Your task to perform on an android device: Is it going to rain today? Image 0: 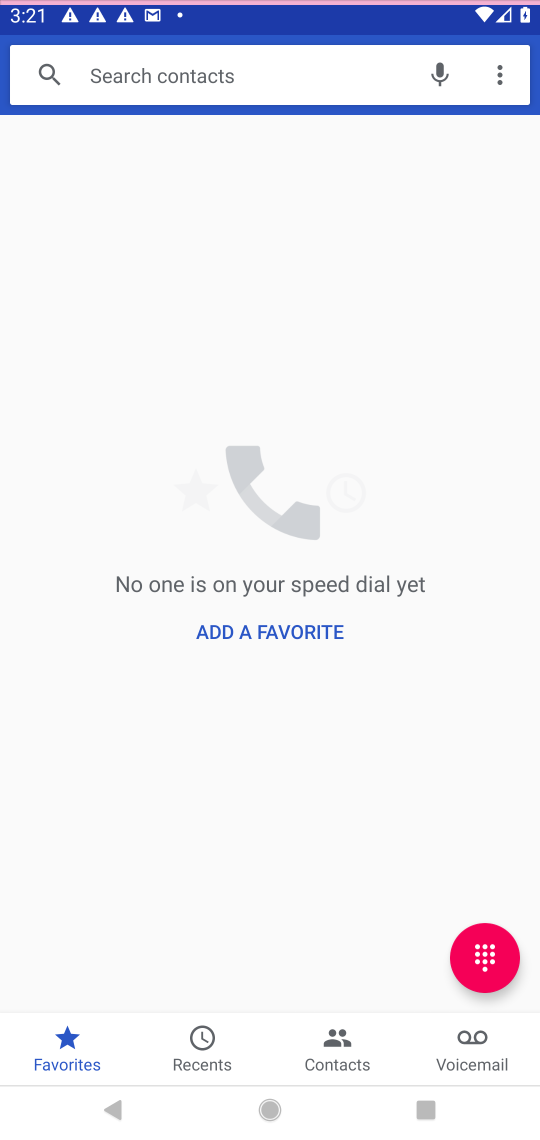
Step 0: drag from (205, 961) to (289, 326)
Your task to perform on an android device: Is it going to rain today? Image 1: 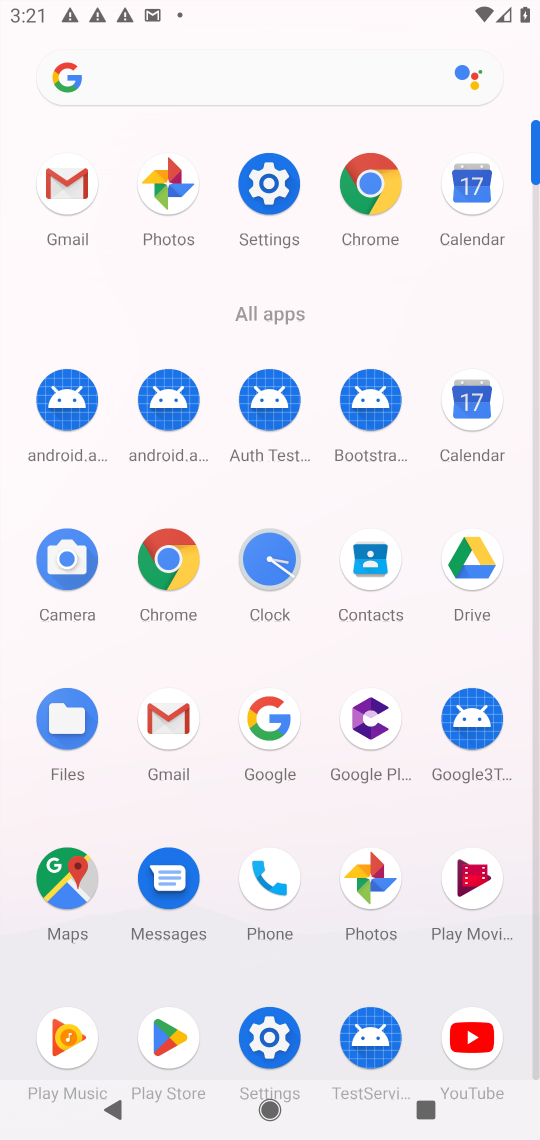
Step 1: click (264, 721)
Your task to perform on an android device: Is it going to rain today? Image 2: 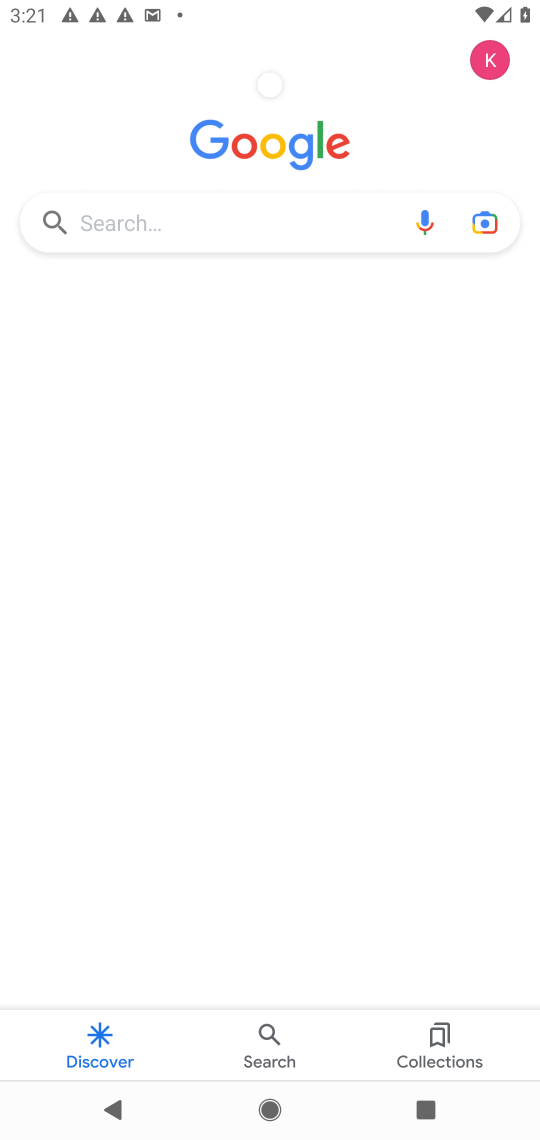
Step 2: click (259, 224)
Your task to perform on an android device: Is it going to rain today? Image 3: 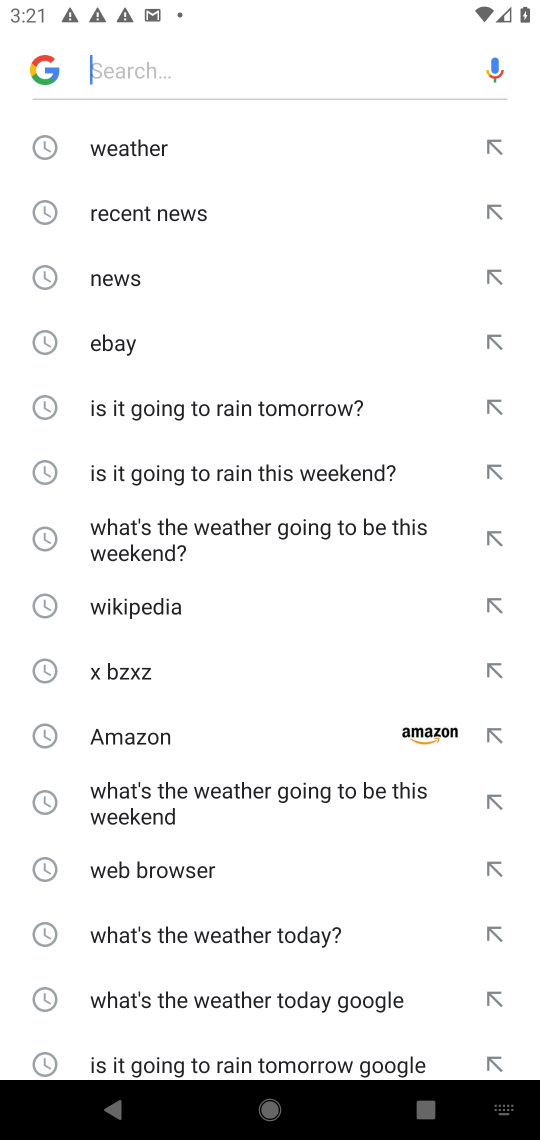
Step 3: drag from (224, 1060) to (249, 435)
Your task to perform on an android device: Is it going to rain today? Image 4: 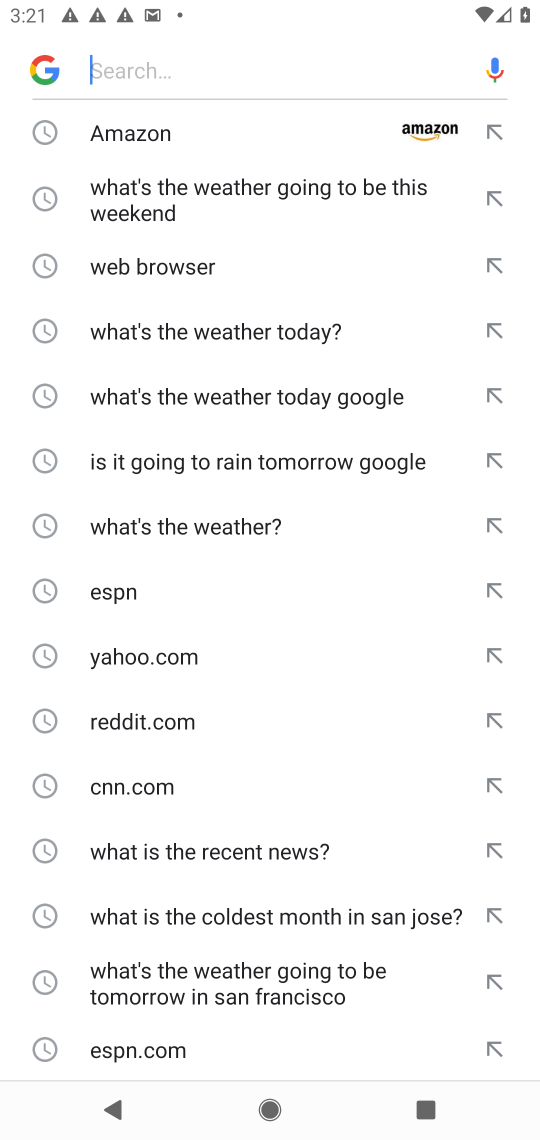
Step 4: drag from (154, 1043) to (256, 499)
Your task to perform on an android device: Is it going to rain today? Image 5: 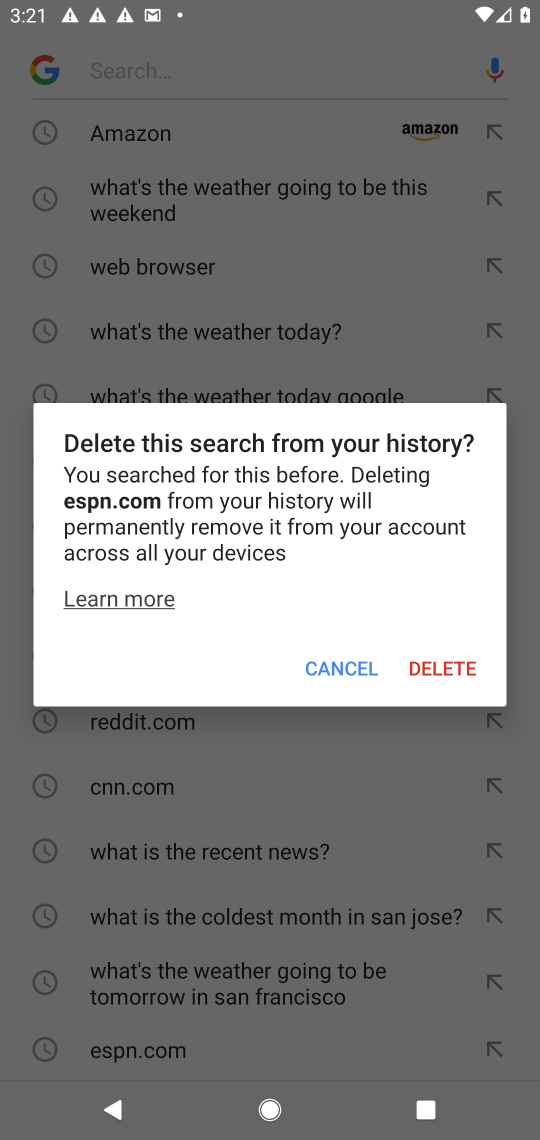
Step 5: click (333, 673)
Your task to perform on an android device: Is it going to rain today? Image 6: 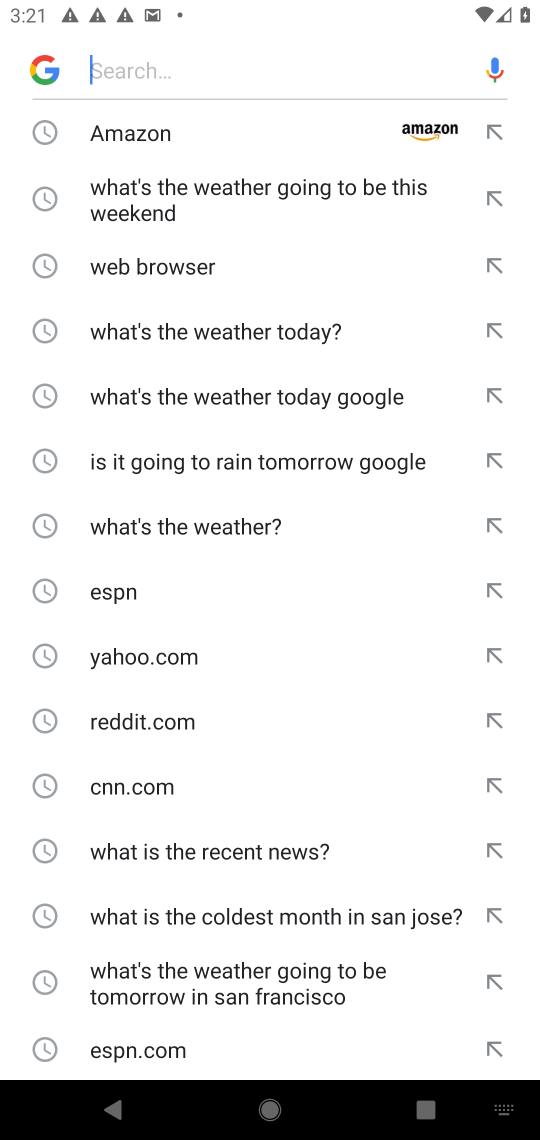
Step 6: drag from (245, 1031) to (262, 480)
Your task to perform on an android device: Is it going to rain today? Image 7: 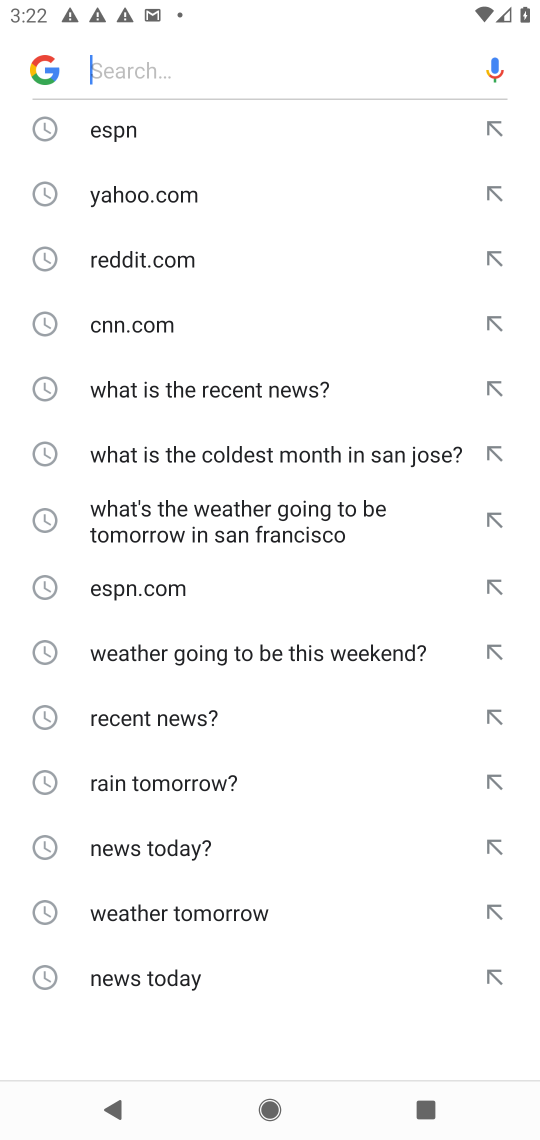
Step 7: drag from (164, 997) to (151, 575)
Your task to perform on an android device: Is it going to rain today? Image 8: 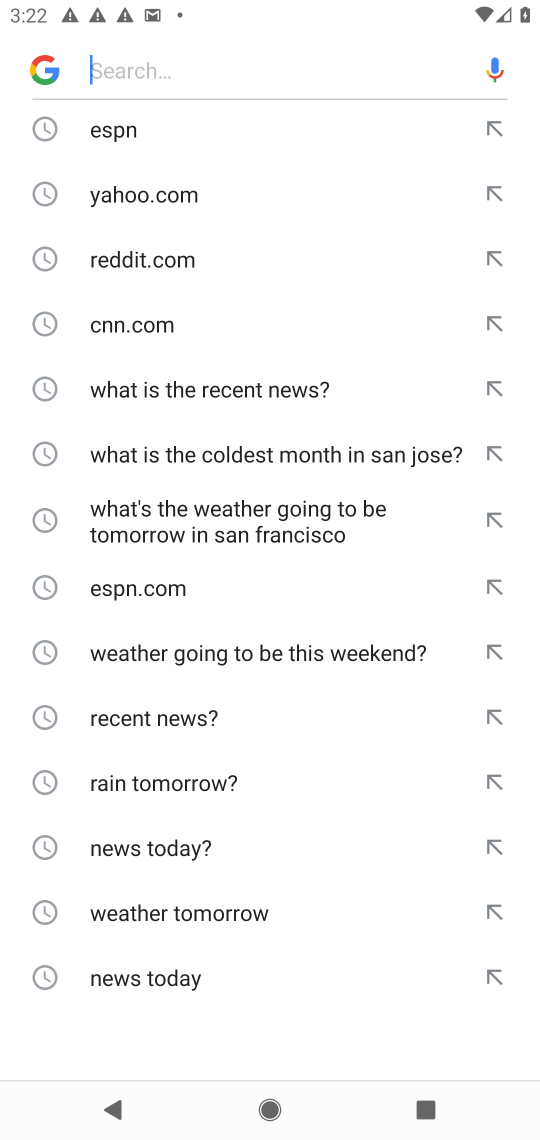
Step 8: drag from (201, 191) to (246, 843)
Your task to perform on an android device: Is it going to rain today? Image 9: 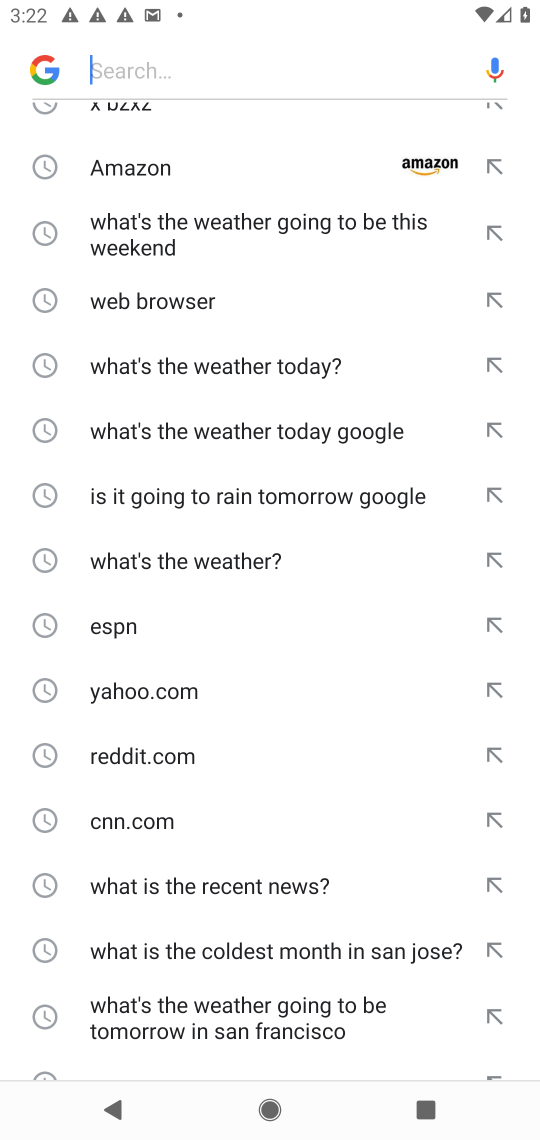
Step 9: drag from (244, 265) to (254, 911)
Your task to perform on an android device: Is it going to rain today? Image 10: 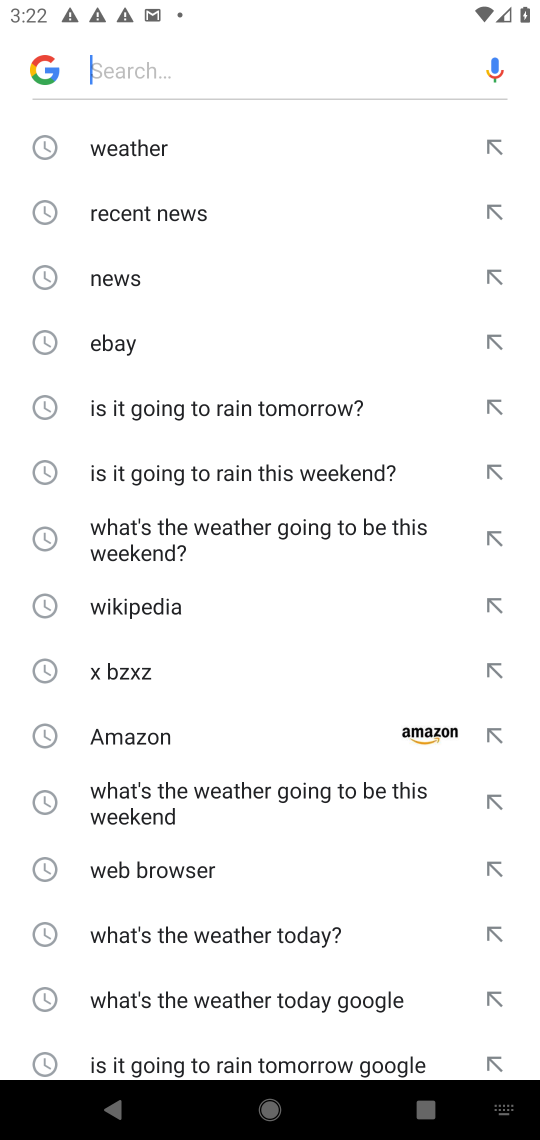
Step 10: click (167, 410)
Your task to perform on an android device: Is it going to rain today? Image 11: 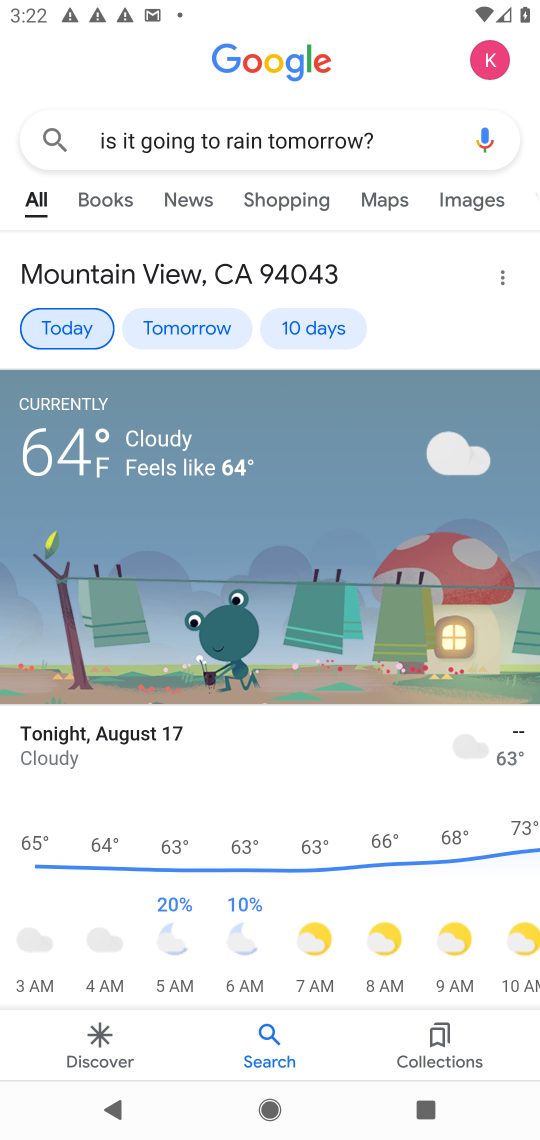
Step 11: task complete